Your task to perform on an android device: find which apps use the phone's location Image 0: 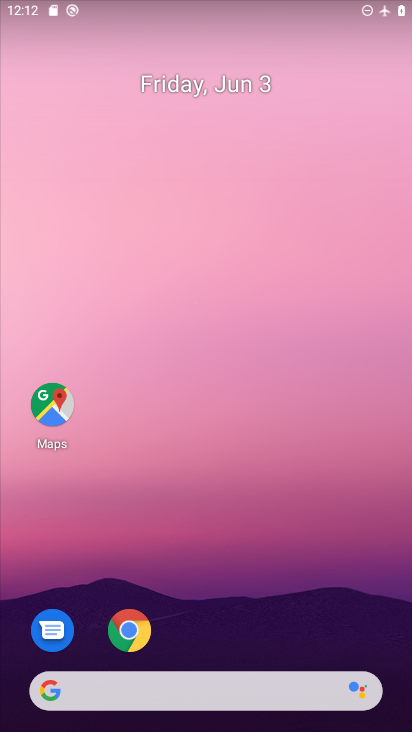
Step 0: drag from (260, 640) to (199, 165)
Your task to perform on an android device: find which apps use the phone's location Image 1: 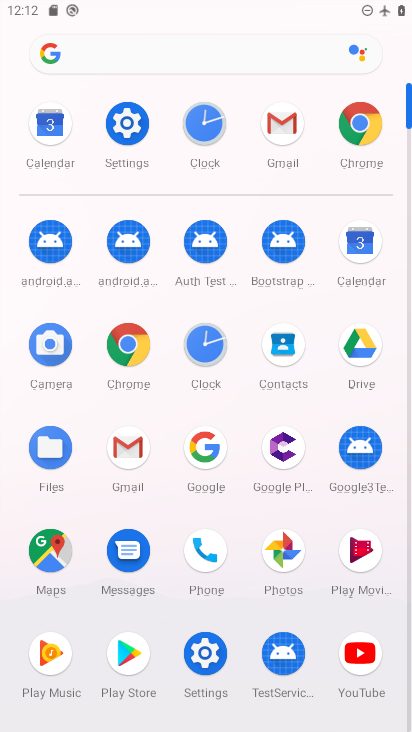
Step 1: click (127, 142)
Your task to perform on an android device: find which apps use the phone's location Image 2: 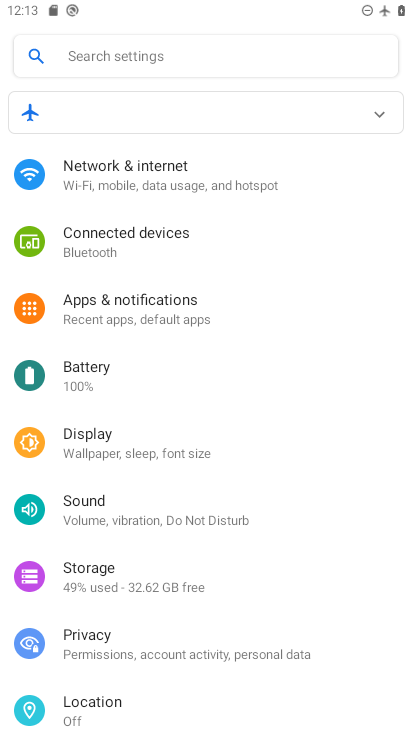
Step 2: drag from (186, 579) to (148, 248)
Your task to perform on an android device: find which apps use the phone's location Image 3: 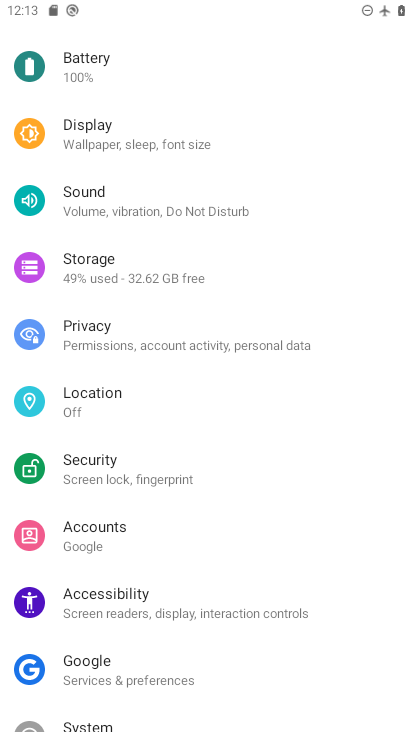
Step 3: click (123, 420)
Your task to perform on an android device: find which apps use the phone's location Image 4: 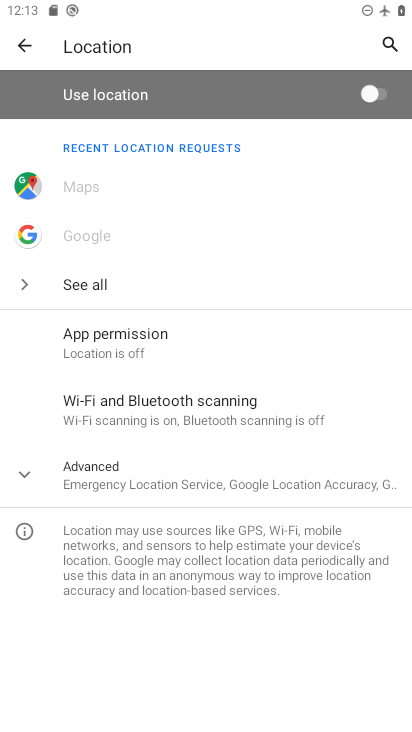
Step 4: click (149, 356)
Your task to perform on an android device: find which apps use the phone's location Image 5: 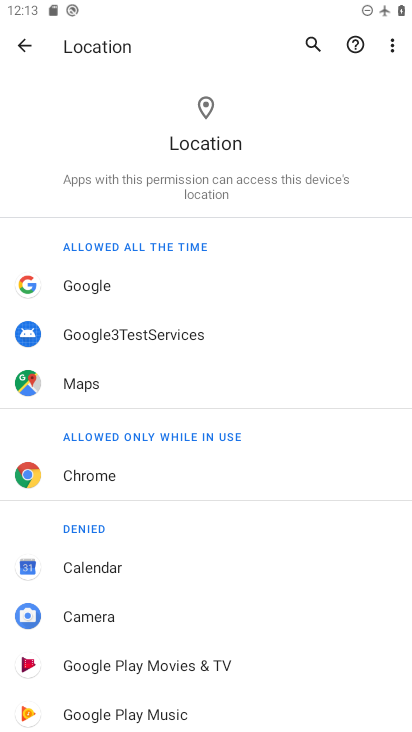
Step 5: task complete